Your task to perform on an android device: Go to accessibility settings Image 0: 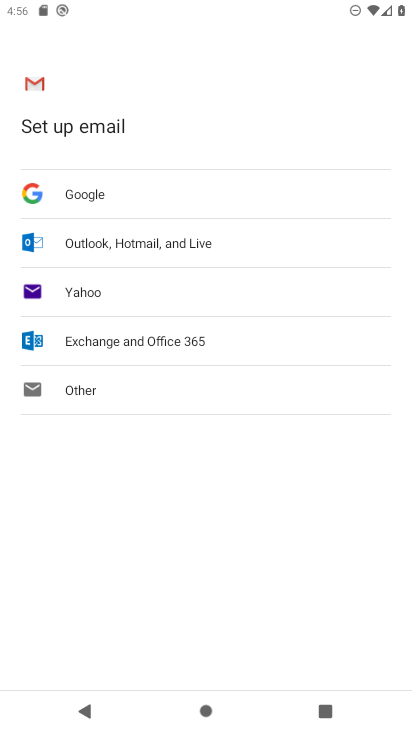
Step 0: press home button
Your task to perform on an android device: Go to accessibility settings Image 1: 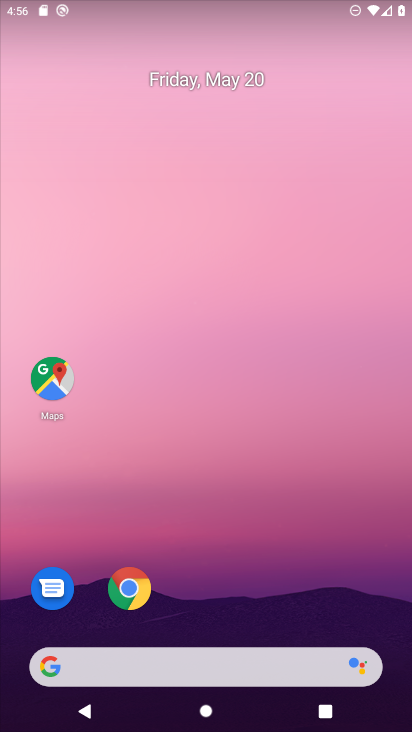
Step 1: drag from (180, 576) to (224, 140)
Your task to perform on an android device: Go to accessibility settings Image 2: 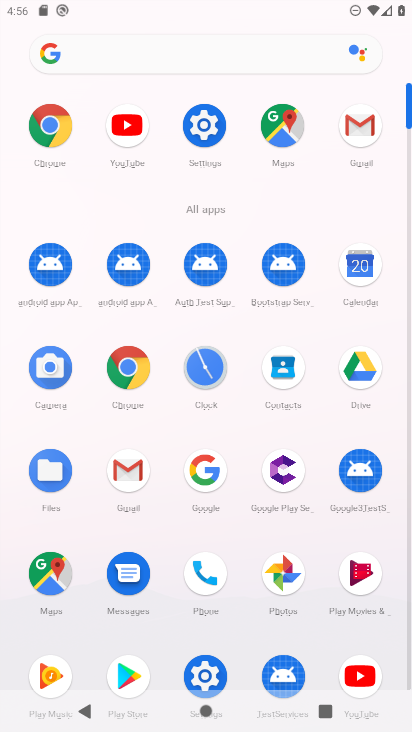
Step 2: click (201, 118)
Your task to perform on an android device: Go to accessibility settings Image 3: 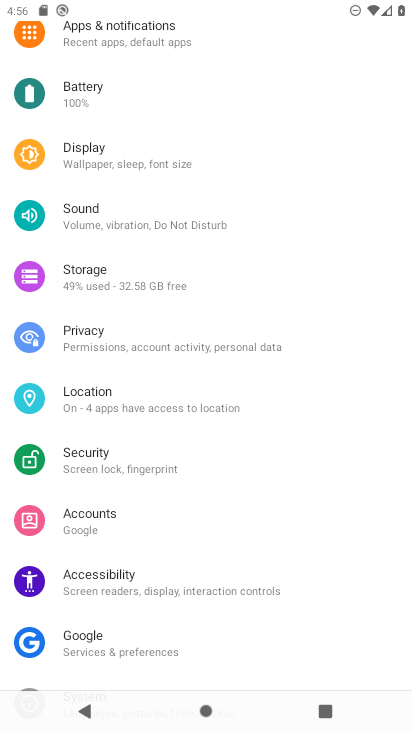
Step 3: click (77, 596)
Your task to perform on an android device: Go to accessibility settings Image 4: 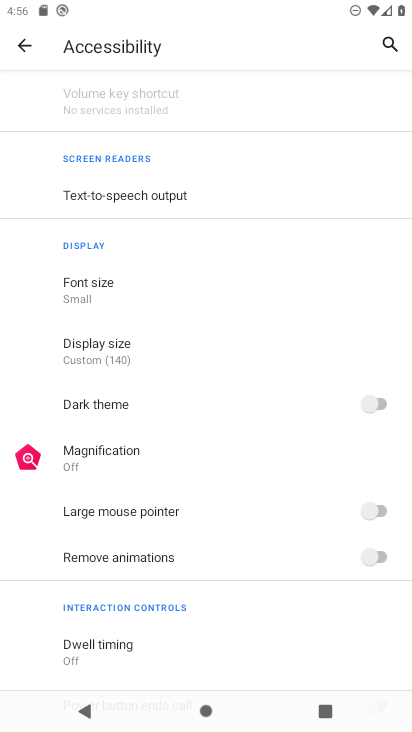
Step 4: task complete